Your task to perform on an android device: turn on priority inbox in the gmail app Image 0: 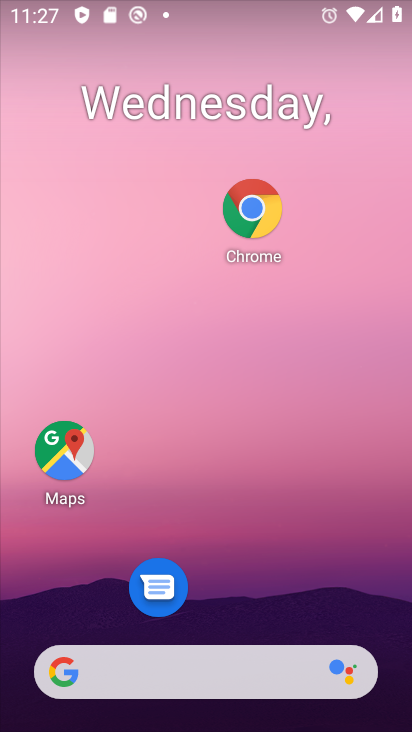
Step 0: drag from (245, 587) to (241, 108)
Your task to perform on an android device: turn on priority inbox in the gmail app Image 1: 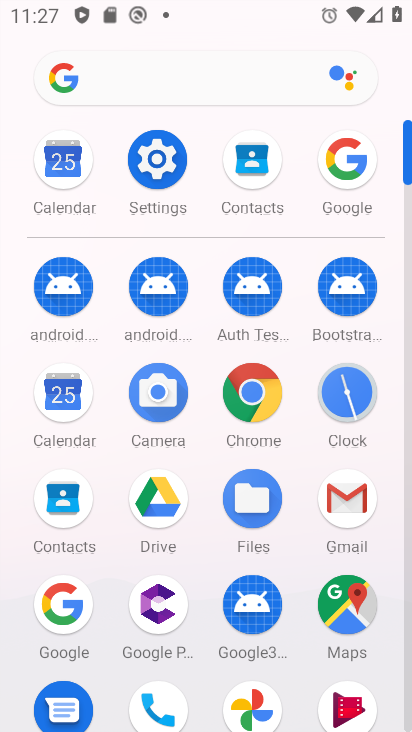
Step 1: click (362, 513)
Your task to perform on an android device: turn on priority inbox in the gmail app Image 2: 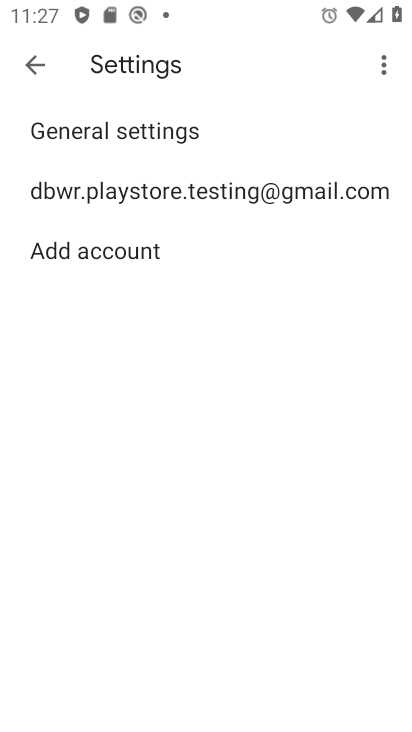
Step 2: click (197, 186)
Your task to perform on an android device: turn on priority inbox in the gmail app Image 3: 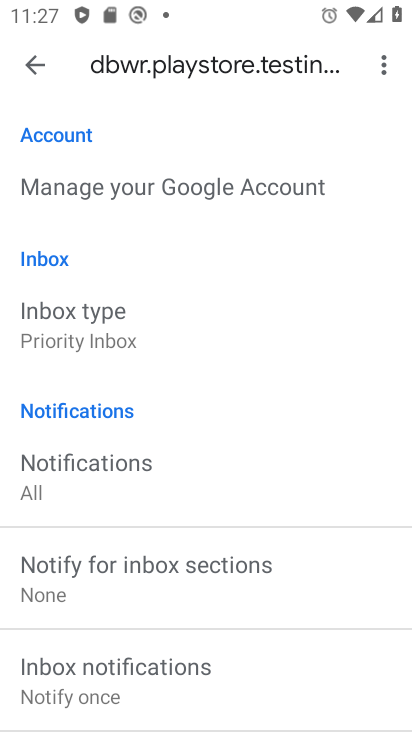
Step 3: task complete